Your task to perform on an android device: change notification settings in the gmail app Image 0: 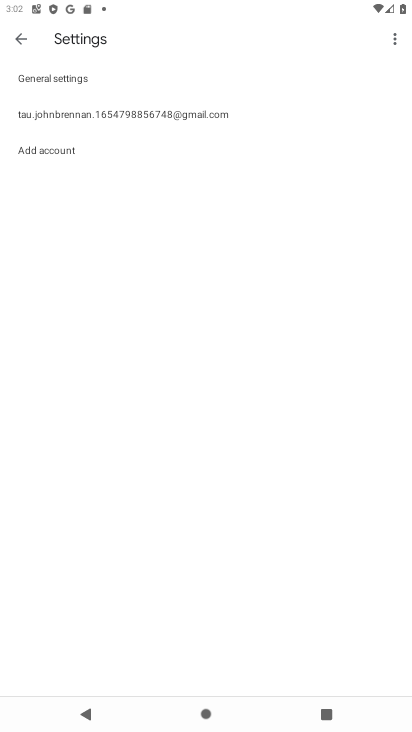
Step 0: press home button
Your task to perform on an android device: change notification settings in the gmail app Image 1: 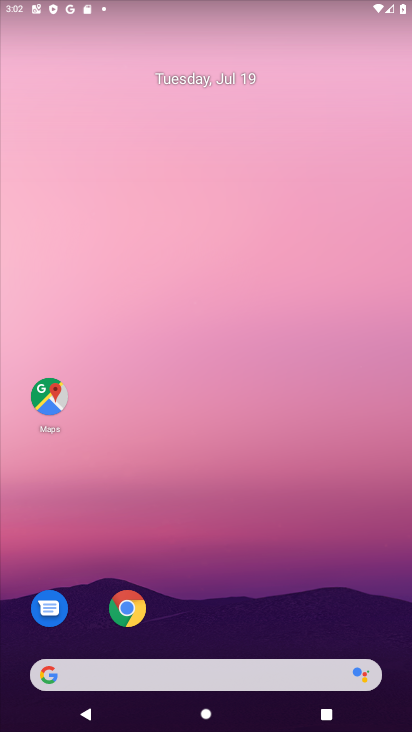
Step 1: drag from (236, 622) to (237, 140)
Your task to perform on an android device: change notification settings in the gmail app Image 2: 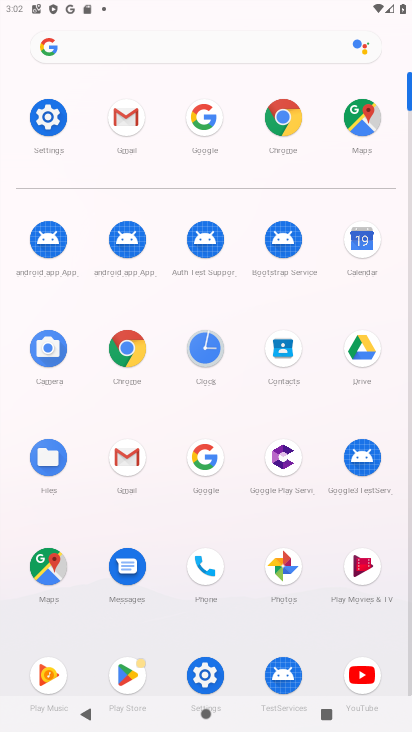
Step 2: click (122, 117)
Your task to perform on an android device: change notification settings in the gmail app Image 3: 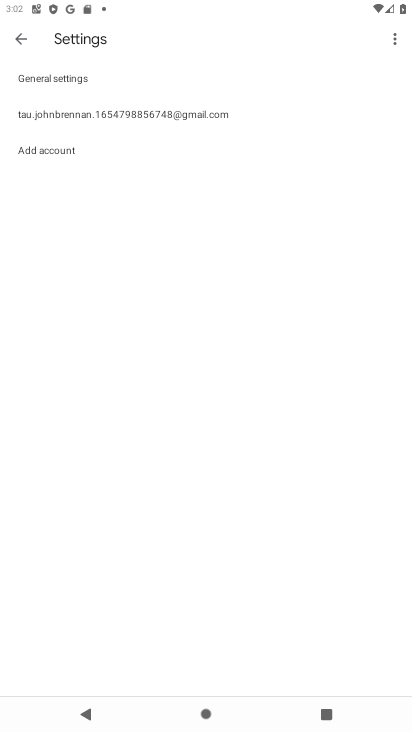
Step 3: click (138, 106)
Your task to perform on an android device: change notification settings in the gmail app Image 4: 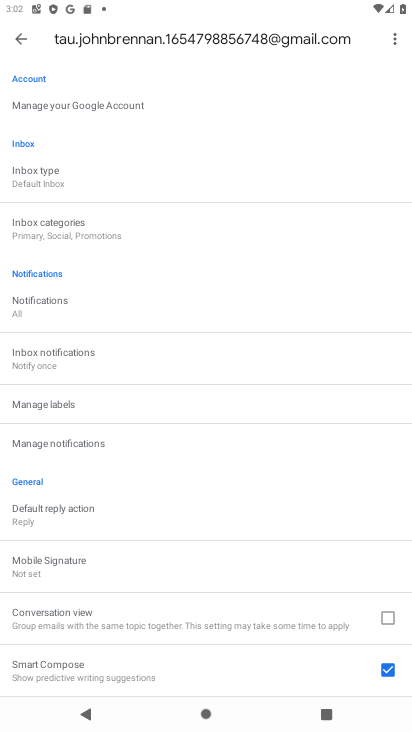
Step 4: click (28, 451)
Your task to perform on an android device: change notification settings in the gmail app Image 5: 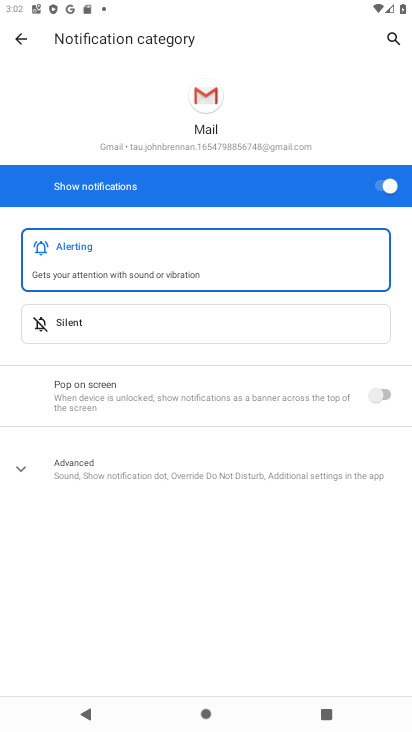
Step 5: click (351, 186)
Your task to perform on an android device: change notification settings in the gmail app Image 6: 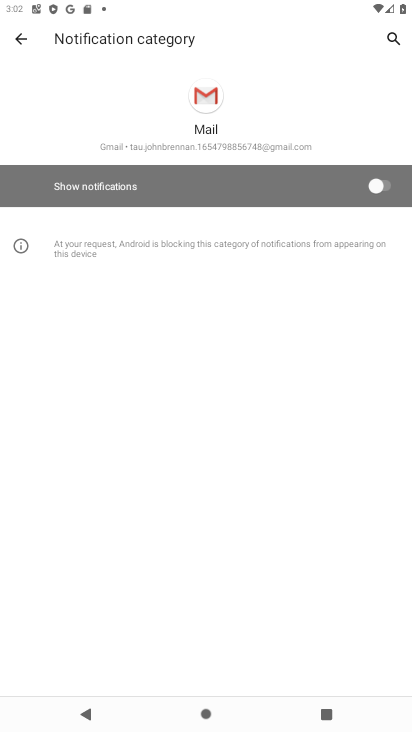
Step 6: task complete